Your task to perform on an android device: check android version Image 0: 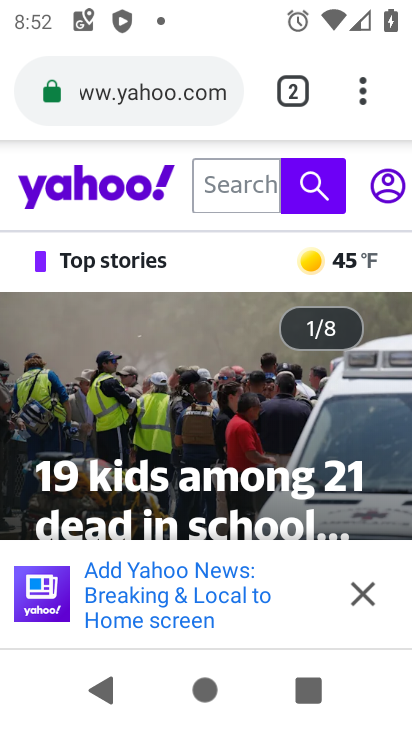
Step 0: press home button
Your task to perform on an android device: check android version Image 1: 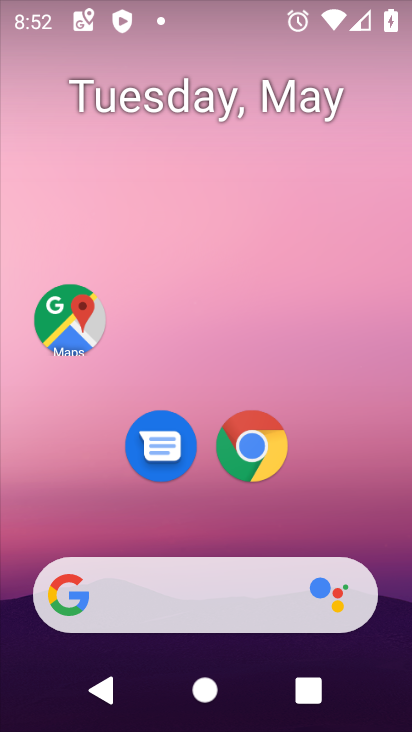
Step 1: drag from (324, 524) to (319, 10)
Your task to perform on an android device: check android version Image 2: 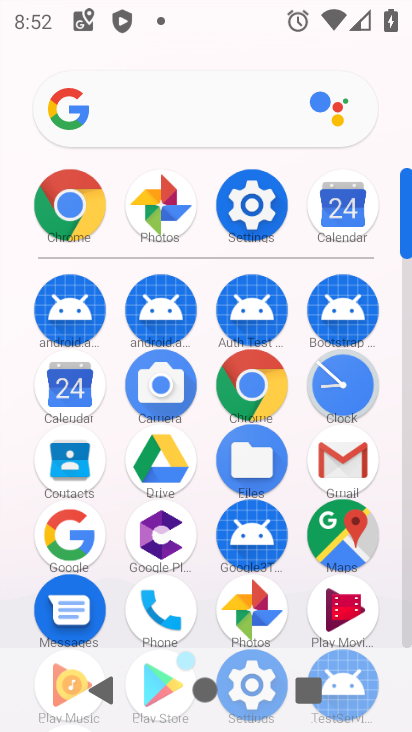
Step 2: click (249, 202)
Your task to perform on an android device: check android version Image 3: 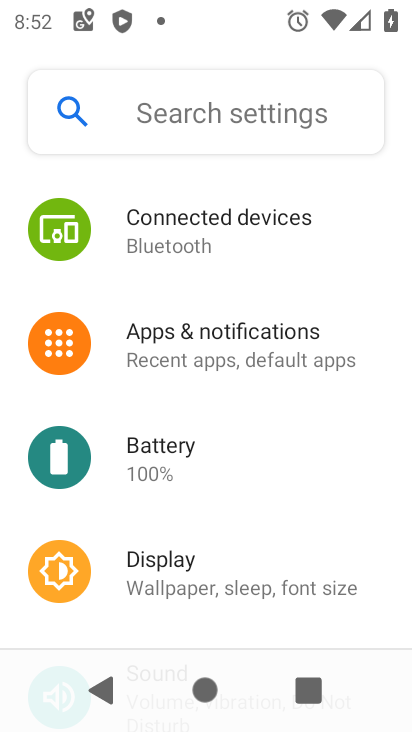
Step 3: drag from (321, 629) to (293, 8)
Your task to perform on an android device: check android version Image 4: 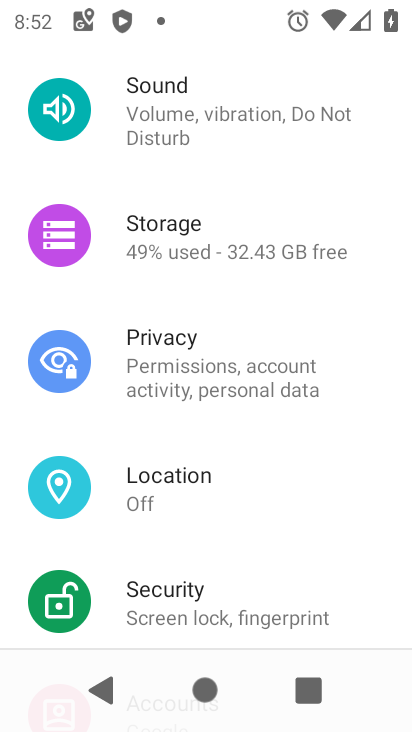
Step 4: drag from (253, 509) to (256, 159)
Your task to perform on an android device: check android version Image 5: 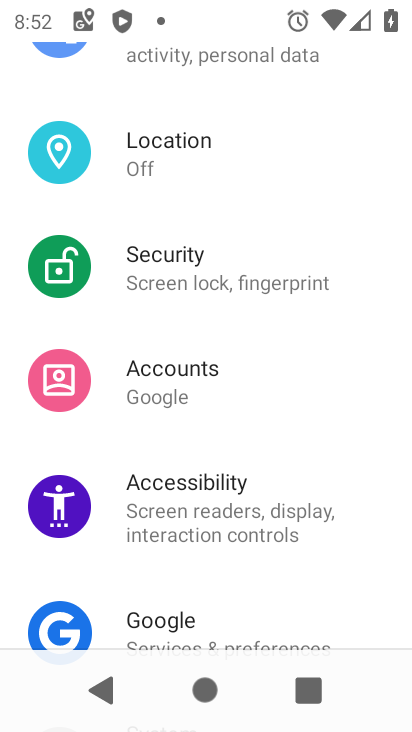
Step 5: drag from (261, 607) to (250, 138)
Your task to perform on an android device: check android version Image 6: 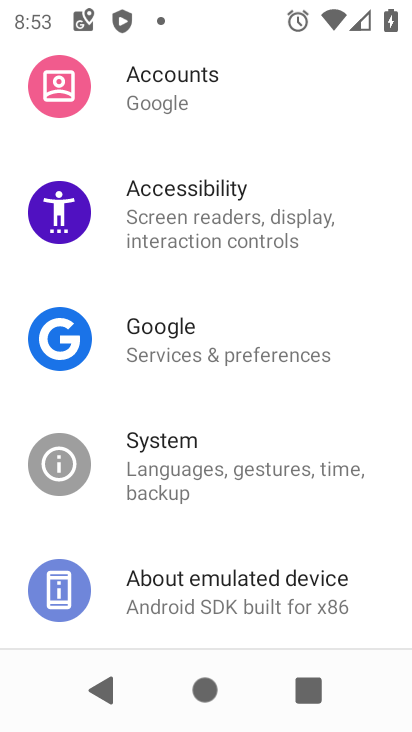
Step 6: click (224, 593)
Your task to perform on an android device: check android version Image 7: 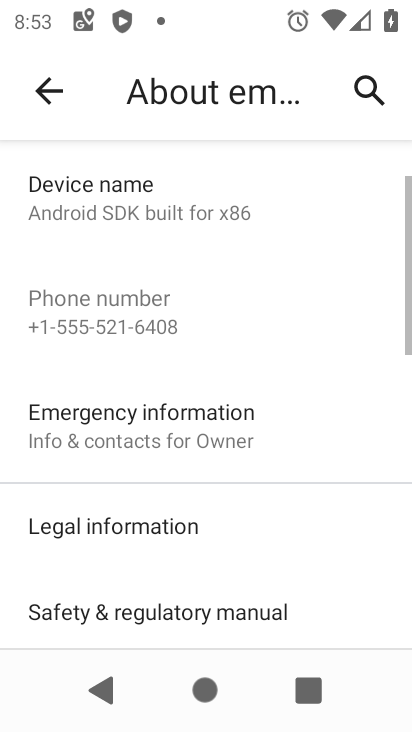
Step 7: drag from (267, 538) to (297, 74)
Your task to perform on an android device: check android version Image 8: 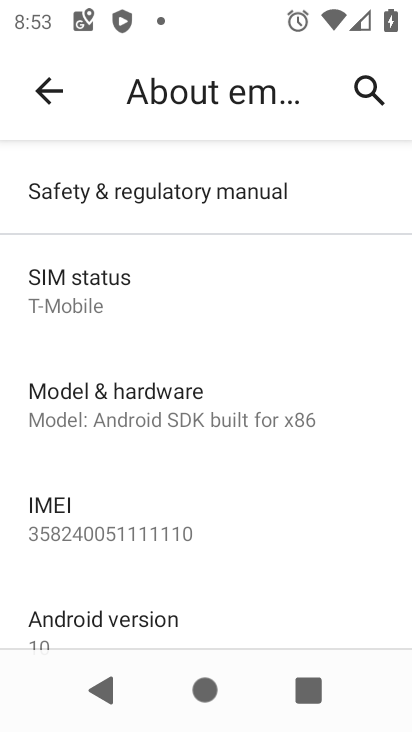
Step 8: drag from (253, 530) to (245, 138)
Your task to perform on an android device: check android version Image 9: 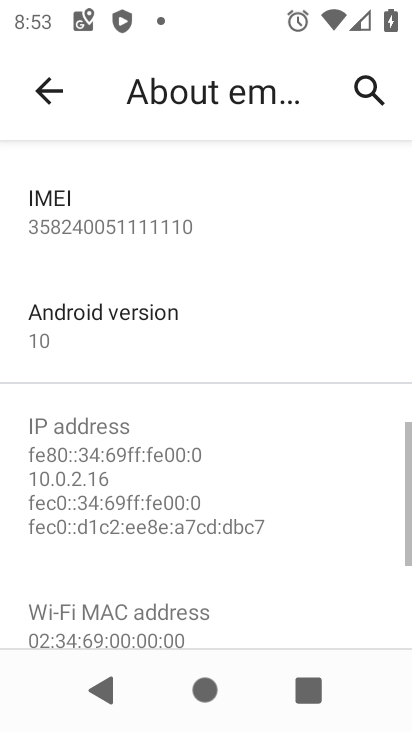
Step 9: click (128, 319)
Your task to perform on an android device: check android version Image 10: 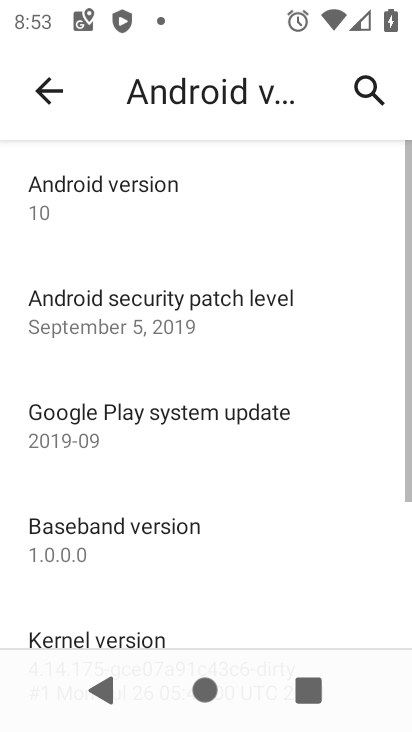
Step 10: task complete